Your task to perform on an android device: turn off wifi Image 0: 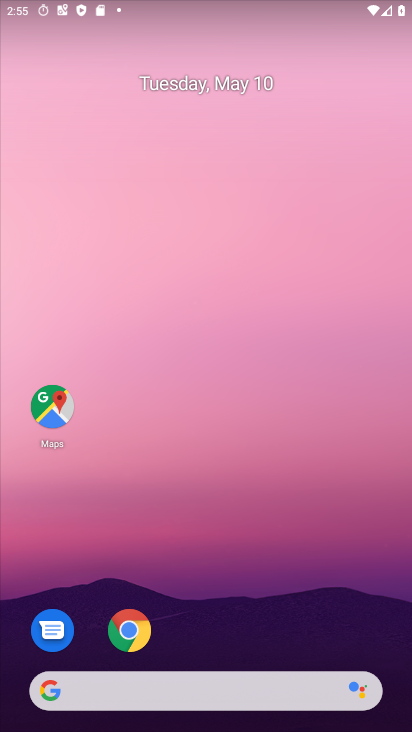
Step 0: drag from (250, 607) to (370, 2)
Your task to perform on an android device: turn off wifi Image 1: 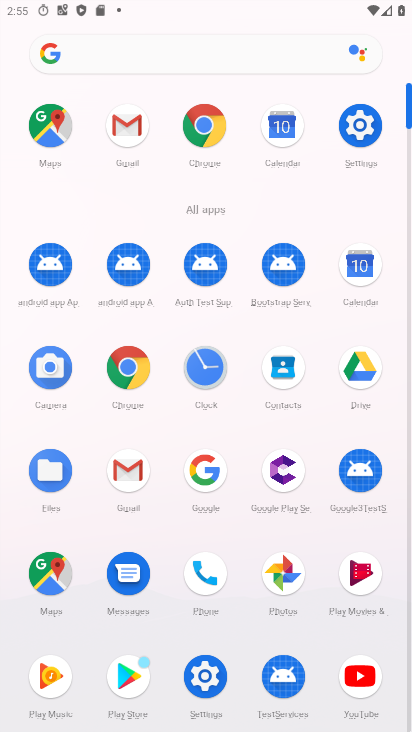
Step 1: click (359, 134)
Your task to perform on an android device: turn off wifi Image 2: 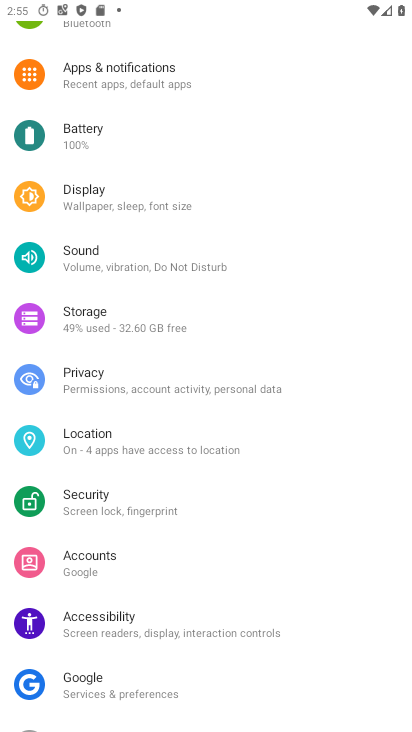
Step 2: drag from (337, 88) to (164, 464)
Your task to perform on an android device: turn off wifi Image 3: 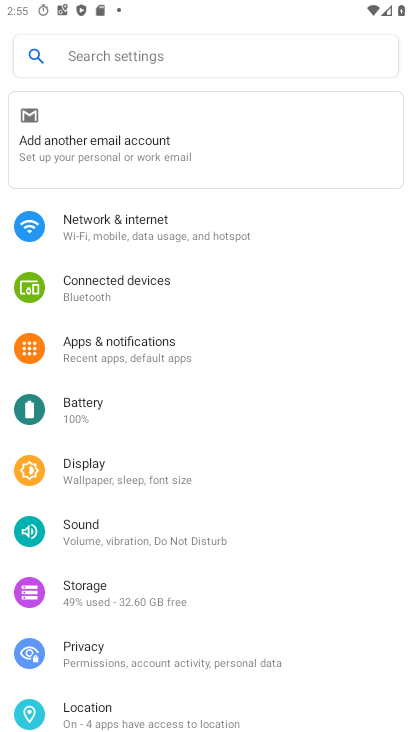
Step 3: click (219, 222)
Your task to perform on an android device: turn off wifi Image 4: 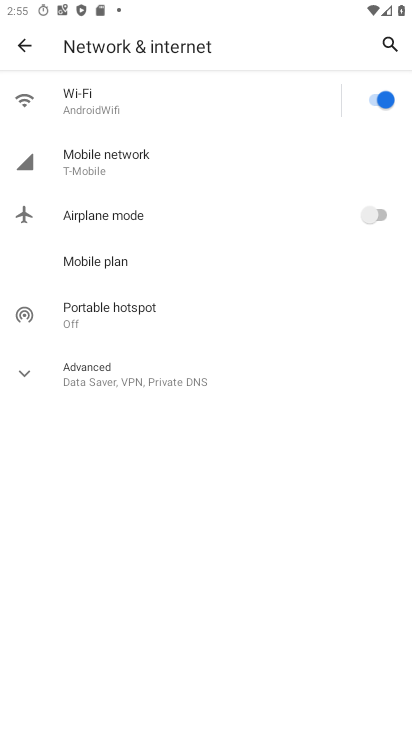
Step 4: click (374, 99)
Your task to perform on an android device: turn off wifi Image 5: 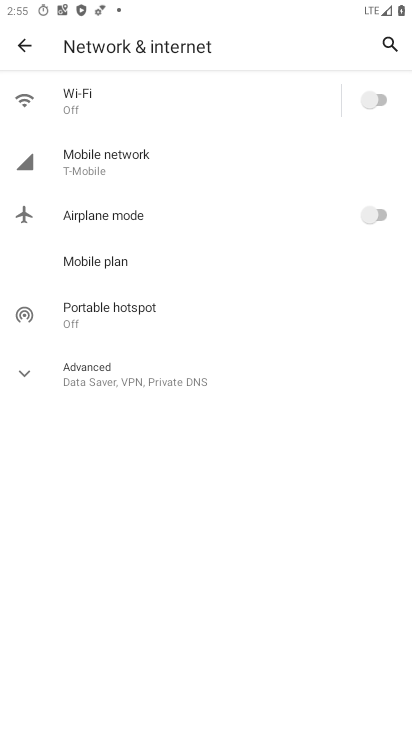
Step 5: task complete